Your task to perform on an android device: set the stopwatch Image 0: 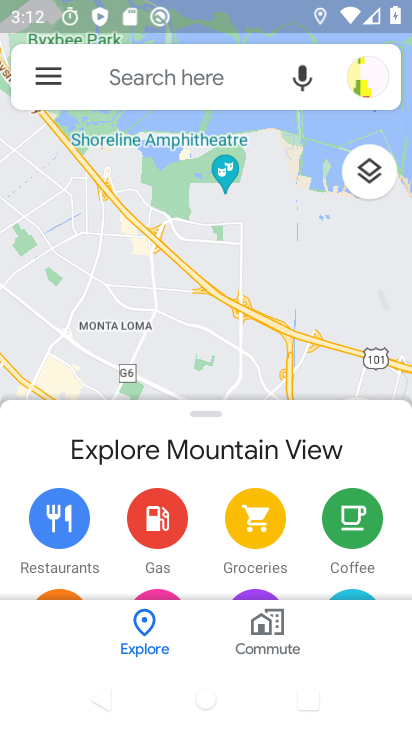
Step 0: press home button
Your task to perform on an android device: set the stopwatch Image 1: 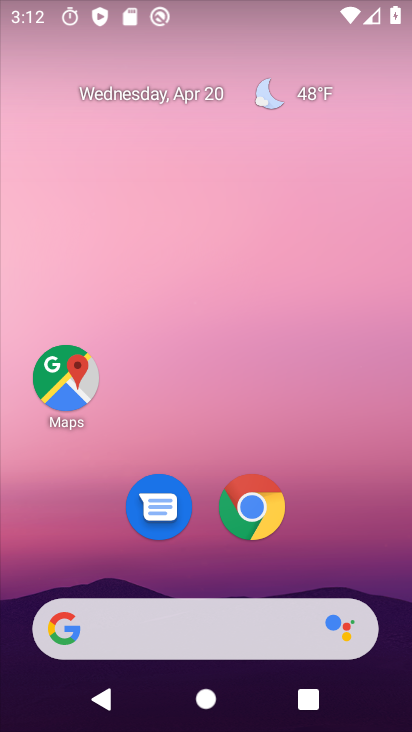
Step 1: drag from (219, 605) to (232, 141)
Your task to perform on an android device: set the stopwatch Image 2: 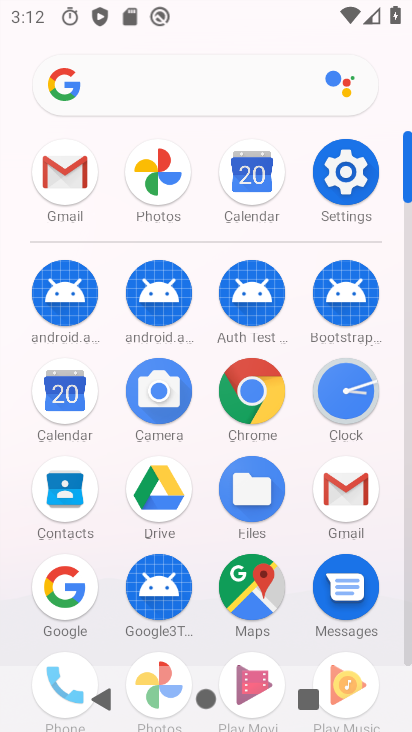
Step 2: click (354, 393)
Your task to perform on an android device: set the stopwatch Image 3: 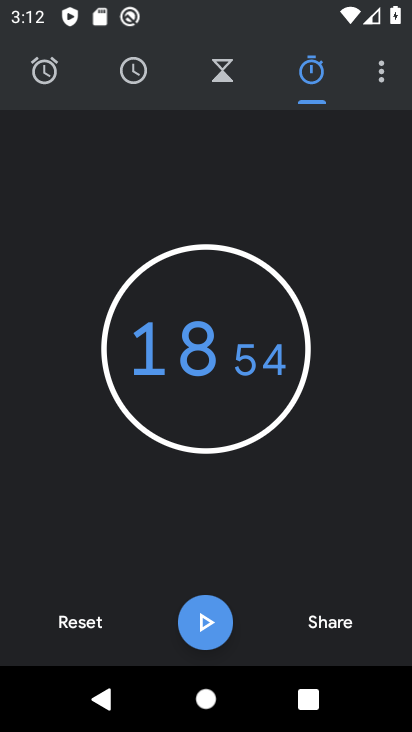
Step 3: click (108, 627)
Your task to perform on an android device: set the stopwatch Image 4: 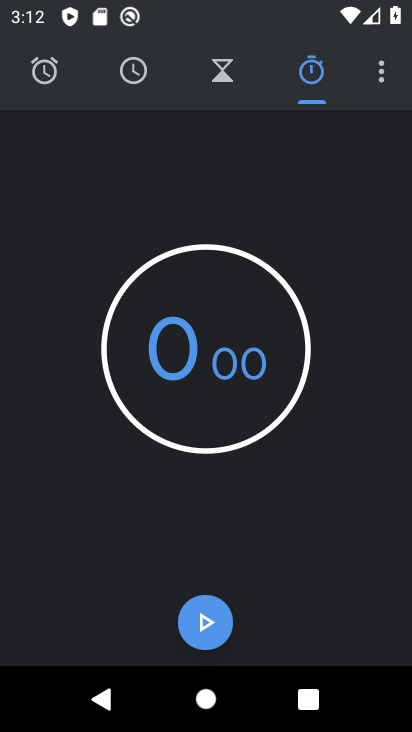
Step 4: click (246, 620)
Your task to perform on an android device: set the stopwatch Image 5: 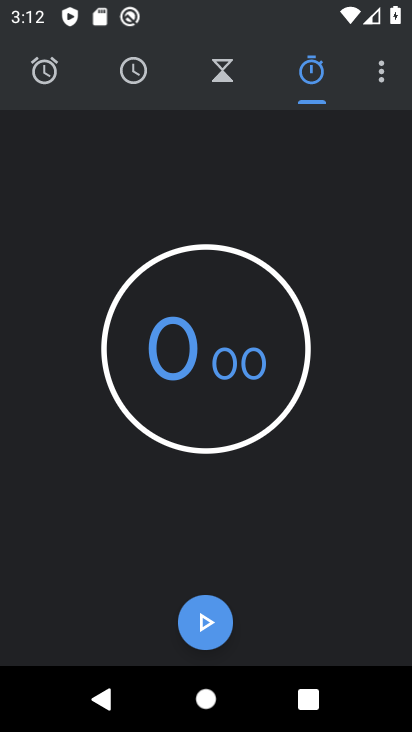
Step 5: click (213, 621)
Your task to perform on an android device: set the stopwatch Image 6: 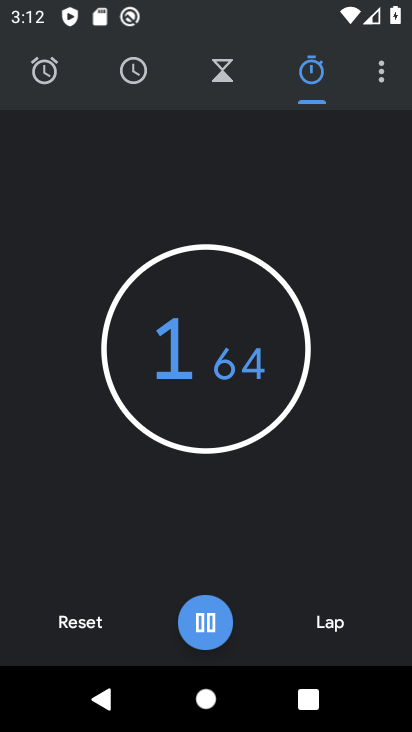
Step 6: task complete